Your task to perform on an android device: turn notification dots off Image 0: 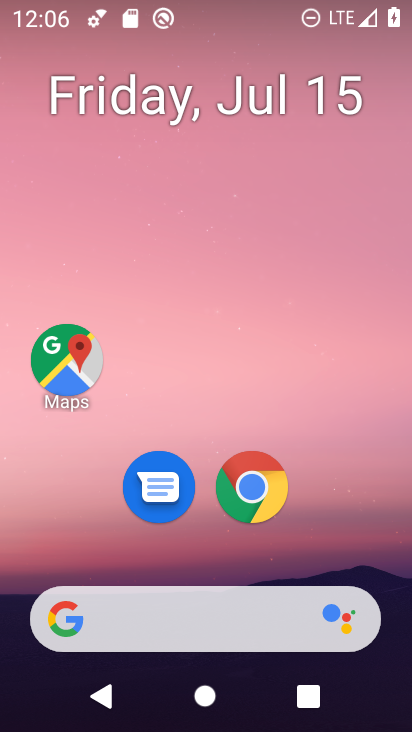
Step 0: drag from (183, 549) to (236, 104)
Your task to perform on an android device: turn notification dots off Image 1: 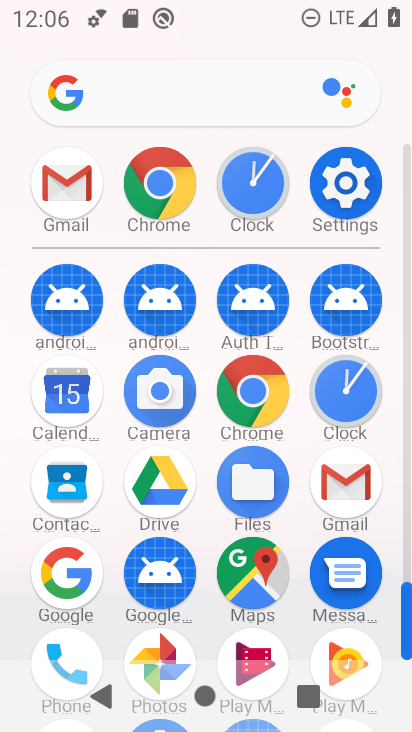
Step 1: click (353, 209)
Your task to perform on an android device: turn notification dots off Image 2: 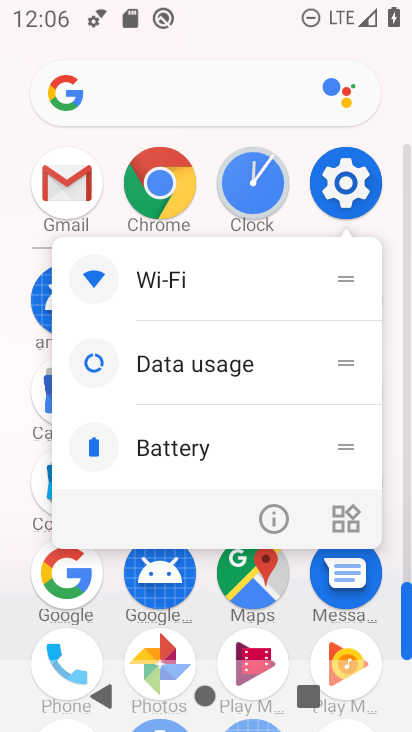
Step 2: click (351, 198)
Your task to perform on an android device: turn notification dots off Image 3: 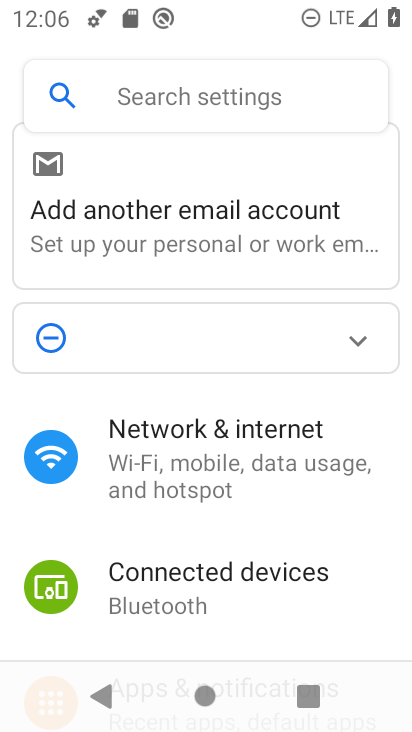
Step 3: click (287, 575)
Your task to perform on an android device: turn notification dots off Image 4: 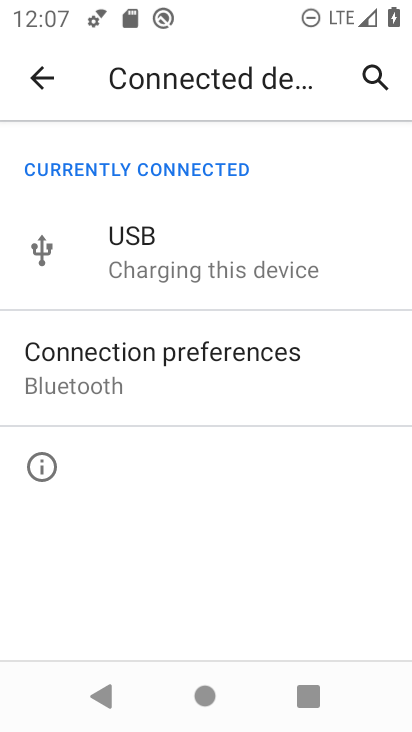
Step 4: click (33, 80)
Your task to perform on an android device: turn notification dots off Image 5: 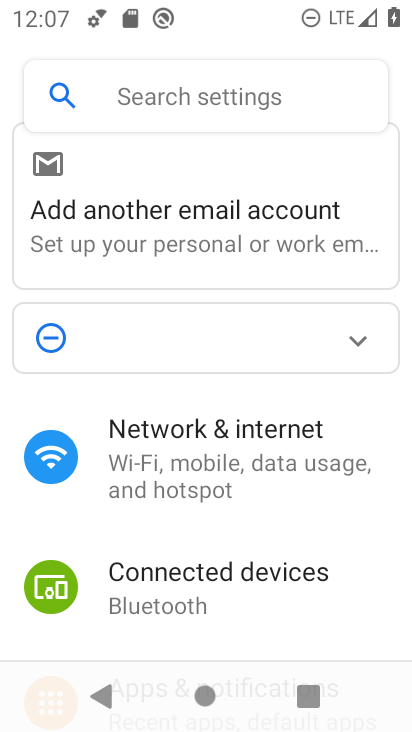
Step 5: drag from (210, 561) to (230, 249)
Your task to perform on an android device: turn notification dots off Image 6: 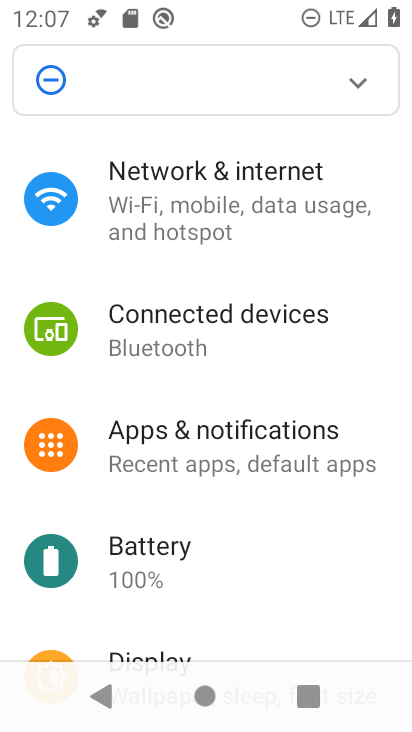
Step 6: click (278, 451)
Your task to perform on an android device: turn notification dots off Image 7: 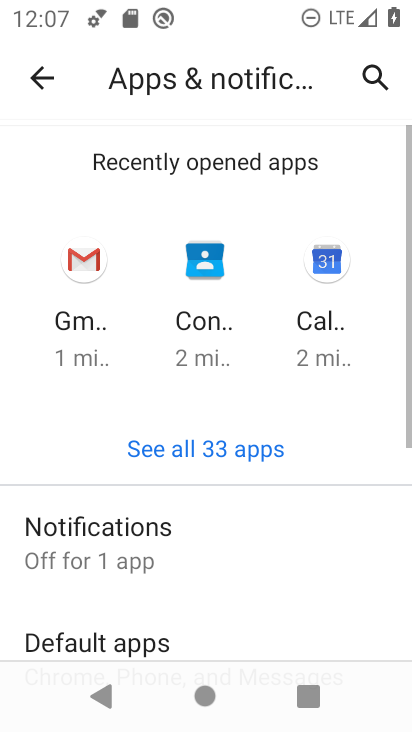
Step 7: drag from (178, 545) to (273, 67)
Your task to perform on an android device: turn notification dots off Image 8: 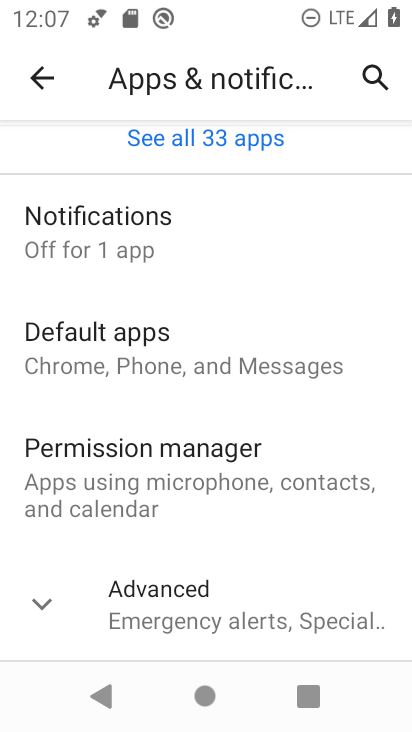
Step 8: click (251, 595)
Your task to perform on an android device: turn notification dots off Image 9: 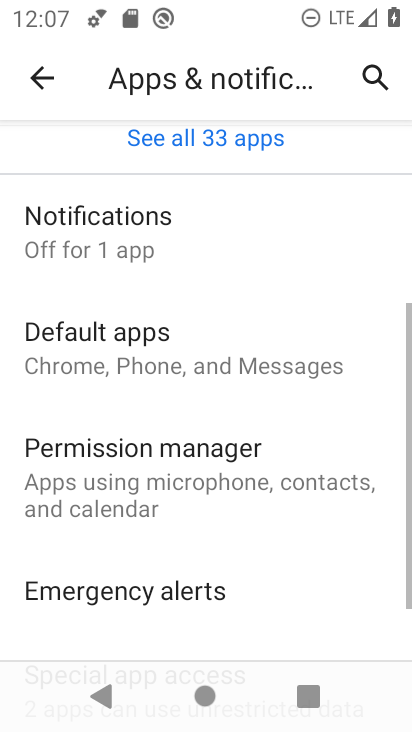
Step 9: drag from (225, 532) to (272, 161)
Your task to perform on an android device: turn notification dots off Image 10: 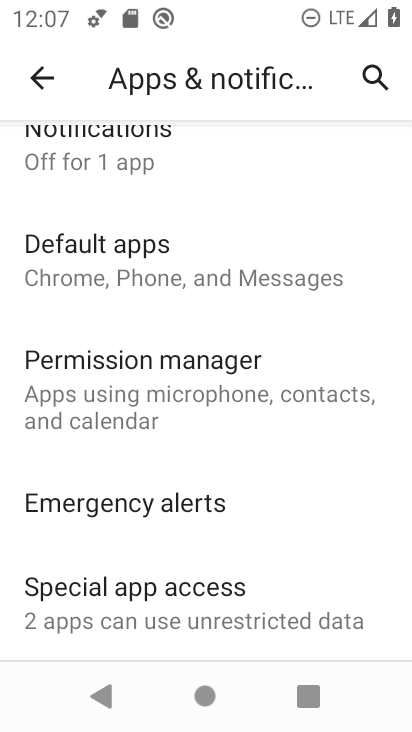
Step 10: drag from (152, 188) to (136, 522)
Your task to perform on an android device: turn notification dots off Image 11: 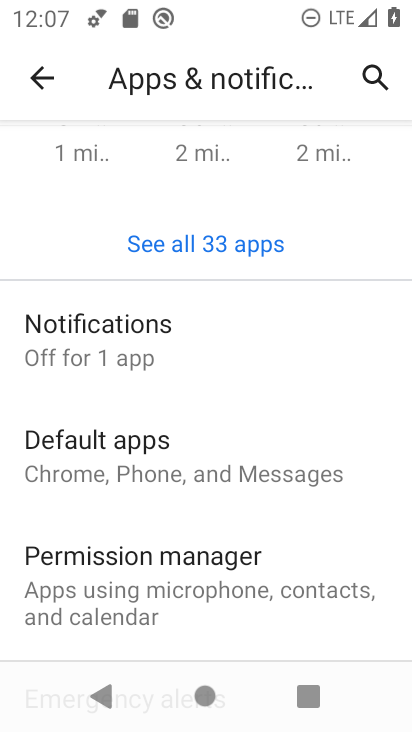
Step 11: click (177, 359)
Your task to perform on an android device: turn notification dots off Image 12: 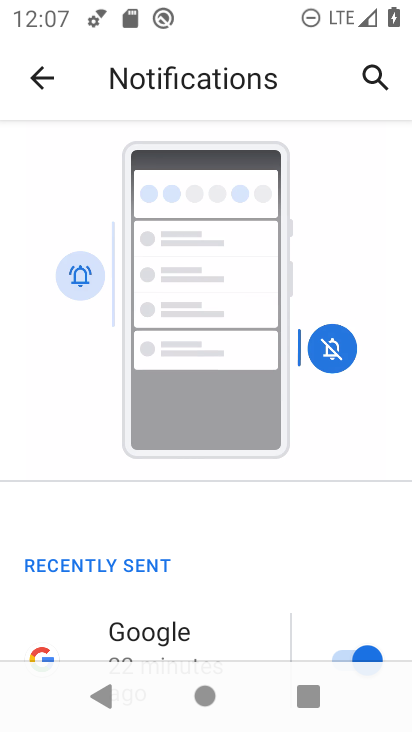
Step 12: drag from (182, 465) to (229, 91)
Your task to perform on an android device: turn notification dots off Image 13: 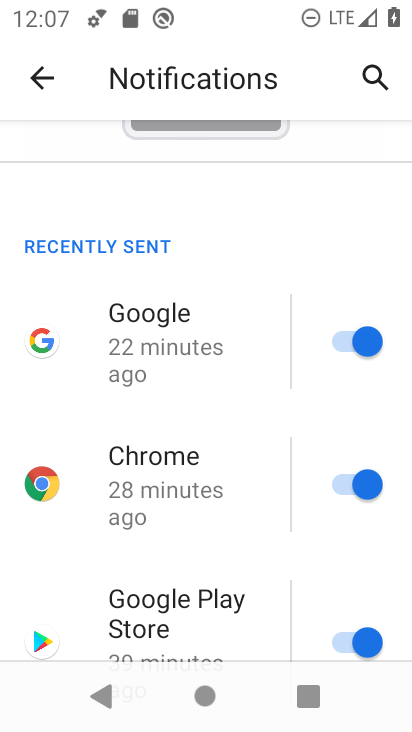
Step 13: drag from (163, 541) to (149, 246)
Your task to perform on an android device: turn notification dots off Image 14: 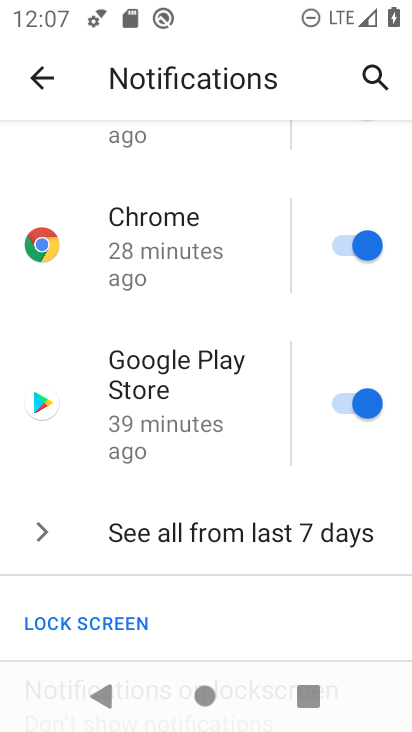
Step 14: drag from (168, 490) to (157, 206)
Your task to perform on an android device: turn notification dots off Image 15: 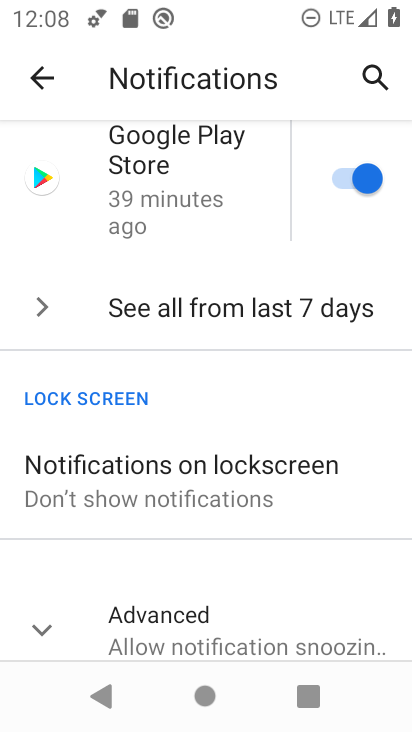
Step 15: click (200, 639)
Your task to perform on an android device: turn notification dots off Image 16: 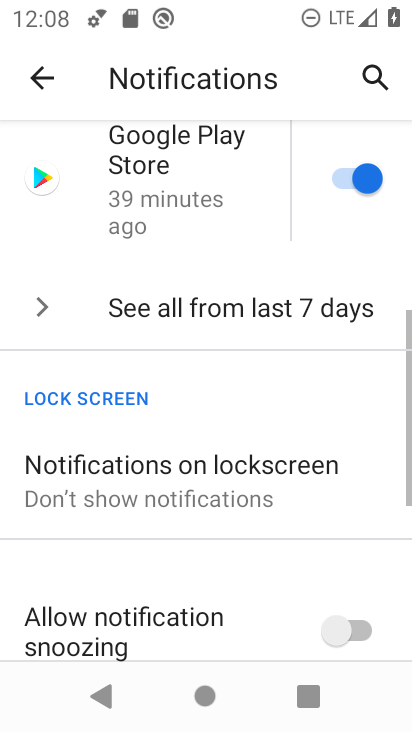
Step 16: drag from (289, 534) to (235, 192)
Your task to perform on an android device: turn notification dots off Image 17: 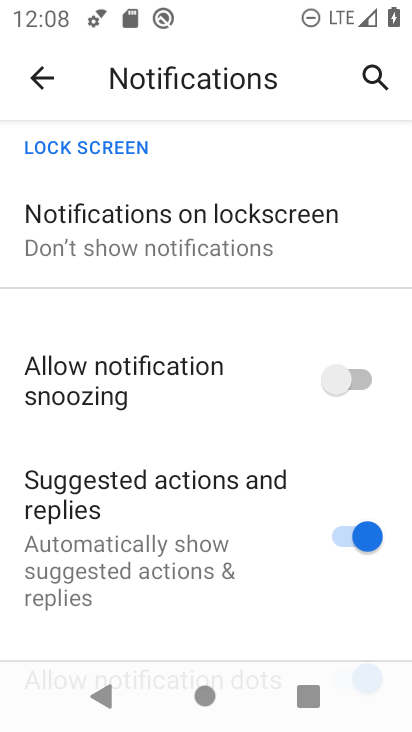
Step 17: drag from (250, 537) to (237, 286)
Your task to perform on an android device: turn notification dots off Image 18: 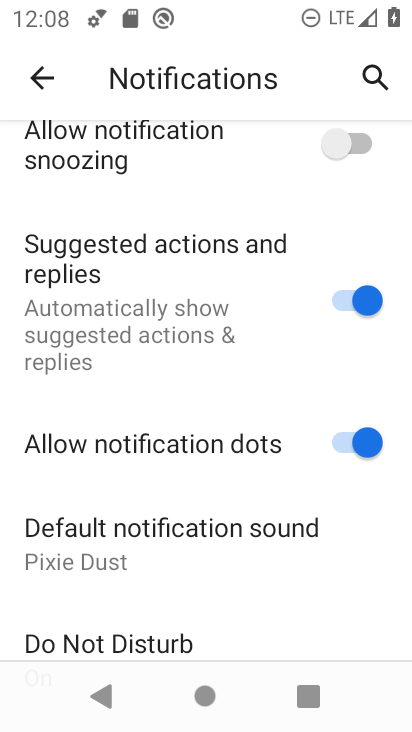
Step 18: click (344, 610)
Your task to perform on an android device: turn notification dots off Image 19: 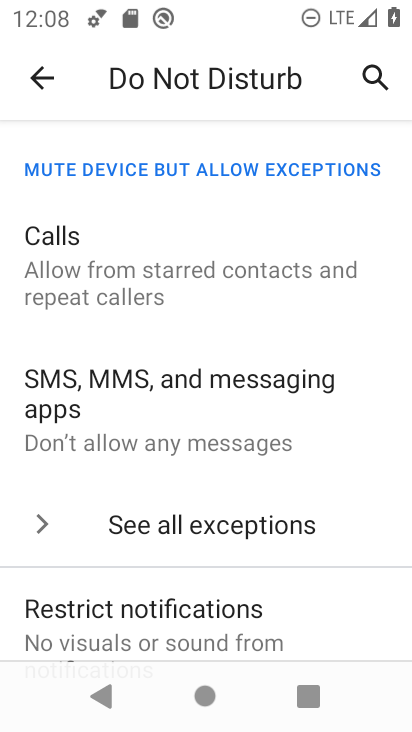
Step 19: task complete